Your task to perform on an android device: create a new album in the google photos Image 0: 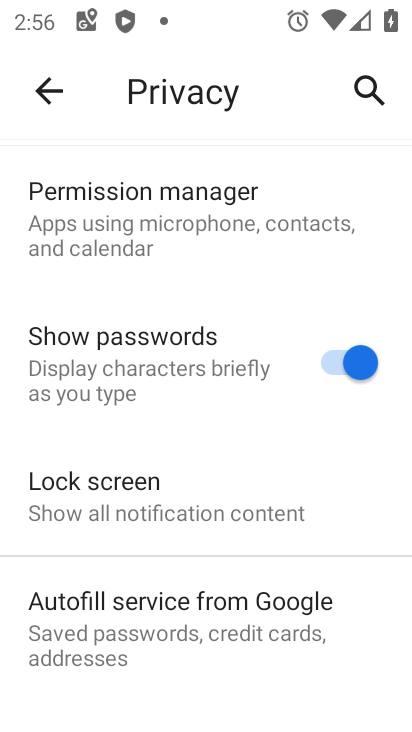
Step 0: press home button
Your task to perform on an android device: create a new album in the google photos Image 1: 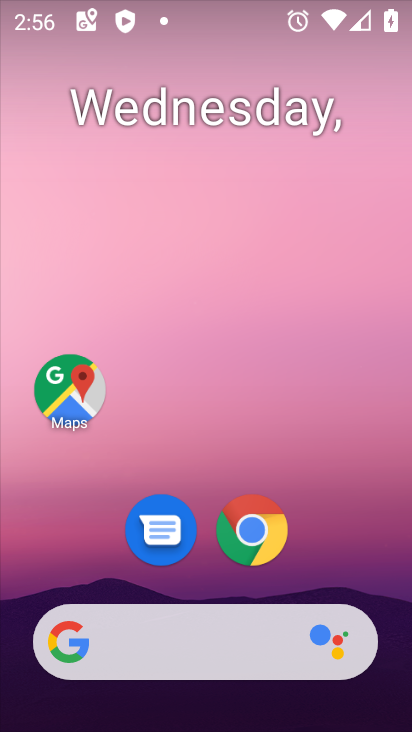
Step 1: drag from (186, 623) to (211, 75)
Your task to perform on an android device: create a new album in the google photos Image 2: 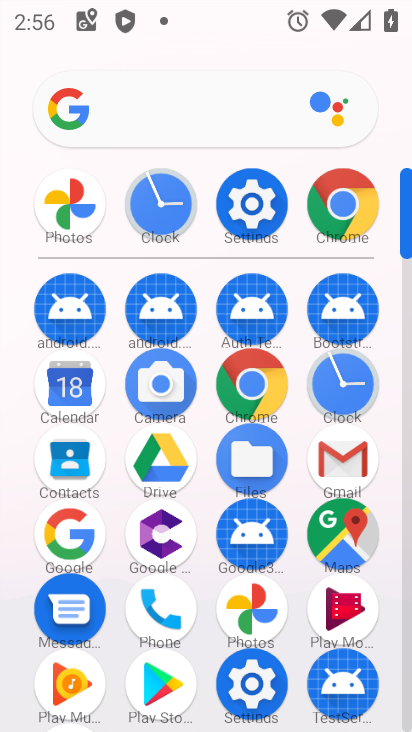
Step 2: click (251, 615)
Your task to perform on an android device: create a new album in the google photos Image 3: 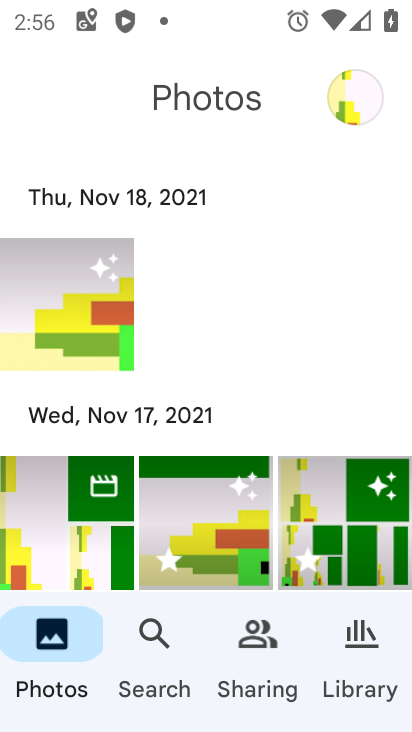
Step 3: click (369, 659)
Your task to perform on an android device: create a new album in the google photos Image 4: 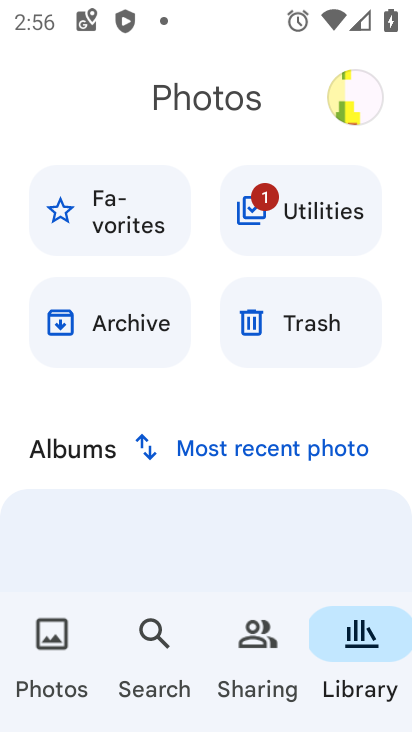
Step 4: drag from (117, 496) to (126, 104)
Your task to perform on an android device: create a new album in the google photos Image 5: 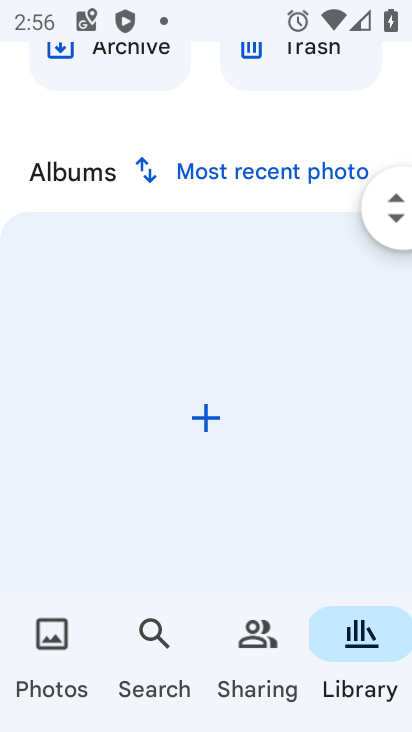
Step 5: click (144, 465)
Your task to perform on an android device: create a new album in the google photos Image 6: 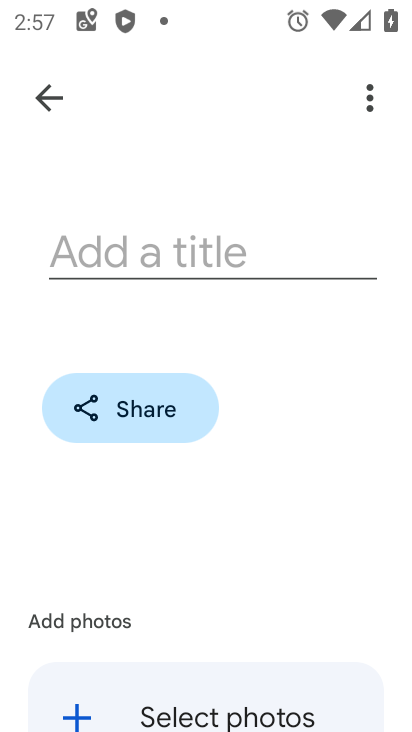
Step 6: click (187, 263)
Your task to perform on an android device: create a new album in the google photos Image 7: 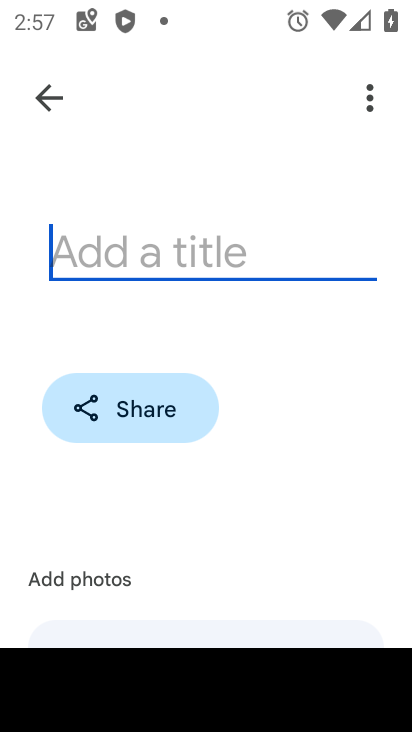
Step 7: type "hfjsdh"
Your task to perform on an android device: create a new album in the google photos Image 8: 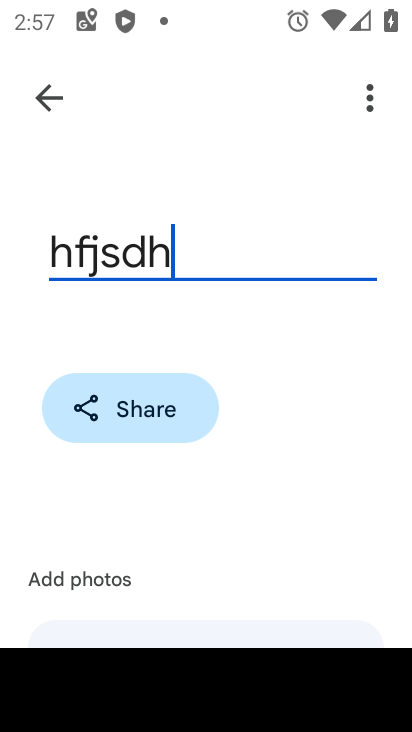
Step 8: drag from (264, 514) to (314, 184)
Your task to perform on an android device: create a new album in the google photos Image 9: 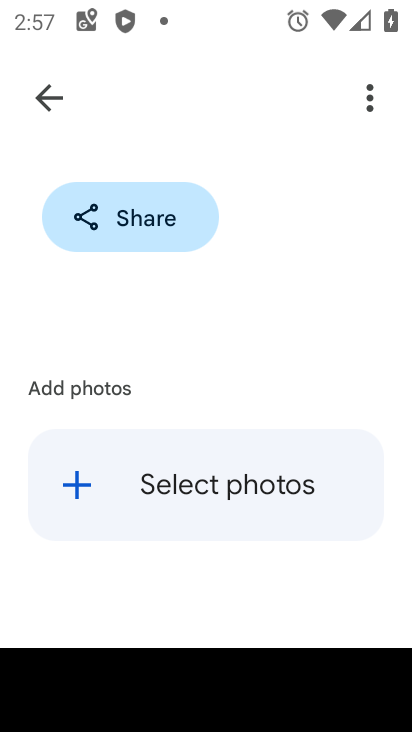
Step 9: click (156, 490)
Your task to perform on an android device: create a new album in the google photos Image 10: 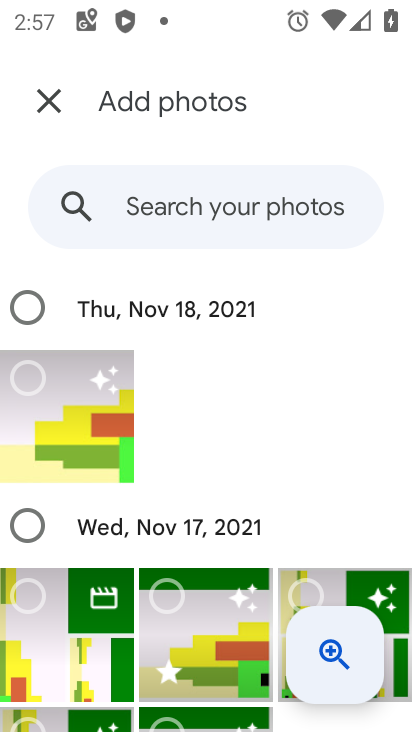
Step 10: click (40, 304)
Your task to perform on an android device: create a new album in the google photos Image 11: 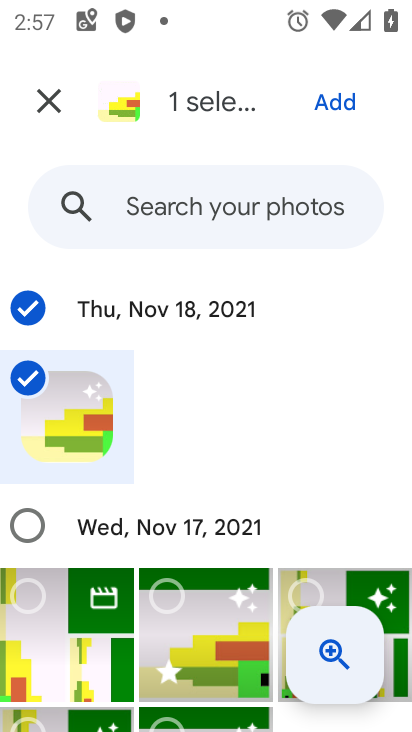
Step 11: click (336, 96)
Your task to perform on an android device: create a new album in the google photos Image 12: 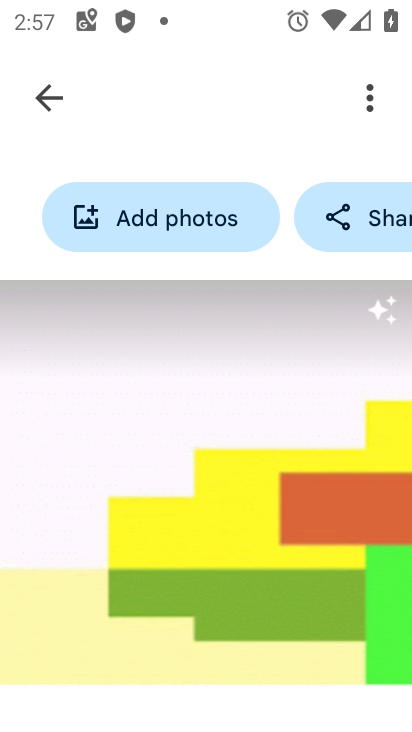
Step 12: task complete